Your task to perform on an android device: open a new tab in the chrome app Image 0: 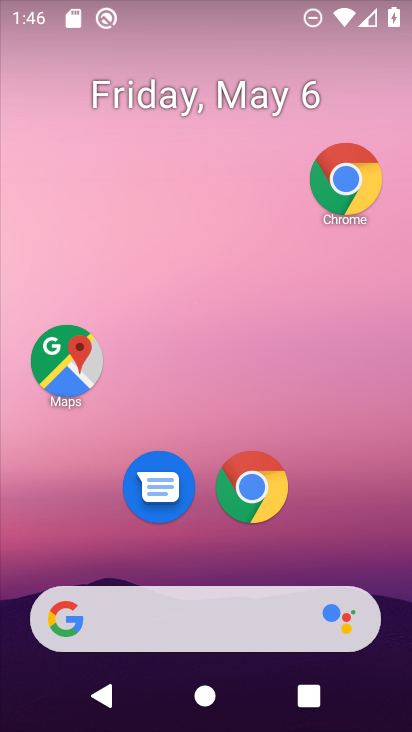
Step 0: click (275, 508)
Your task to perform on an android device: open a new tab in the chrome app Image 1: 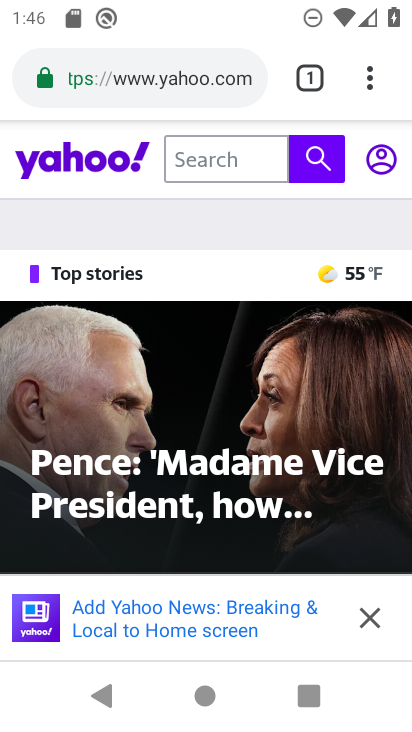
Step 1: click (311, 79)
Your task to perform on an android device: open a new tab in the chrome app Image 2: 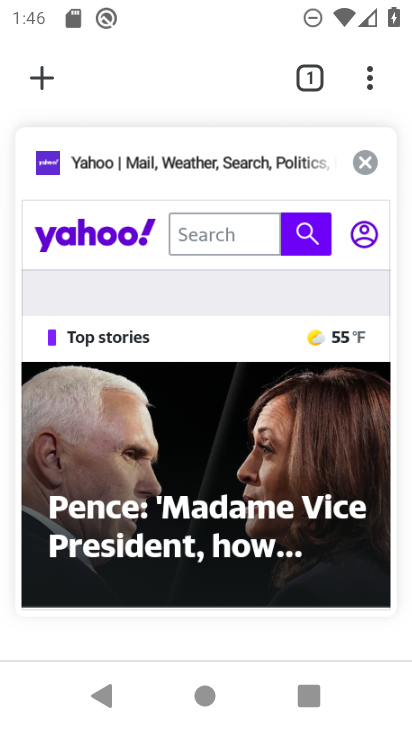
Step 2: click (42, 69)
Your task to perform on an android device: open a new tab in the chrome app Image 3: 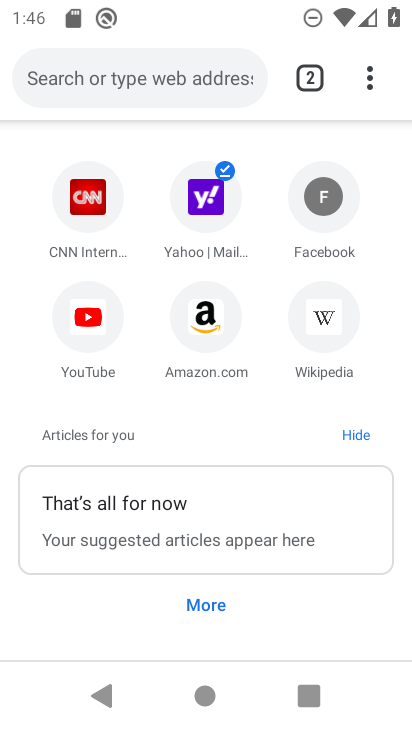
Step 3: task complete